Your task to perform on an android device: search for starred emails in the gmail app Image 0: 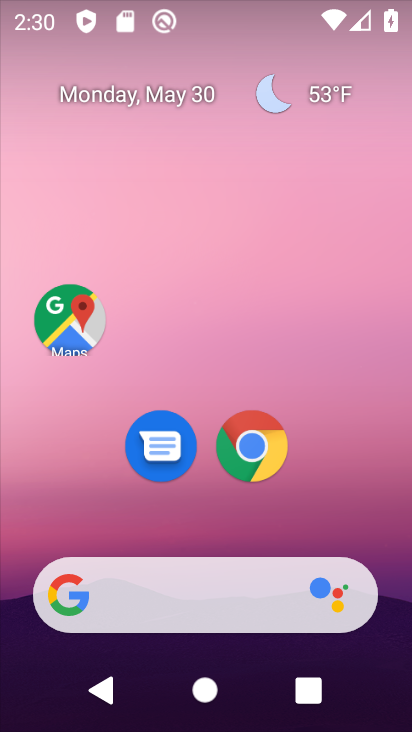
Step 0: drag from (331, 526) to (290, 141)
Your task to perform on an android device: search for starred emails in the gmail app Image 1: 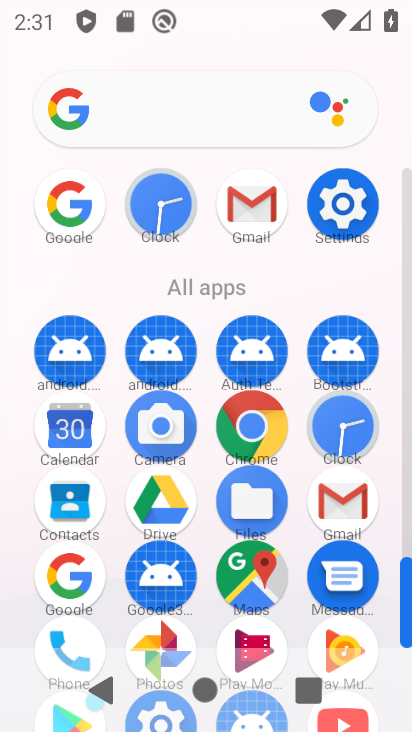
Step 1: click (248, 201)
Your task to perform on an android device: search for starred emails in the gmail app Image 2: 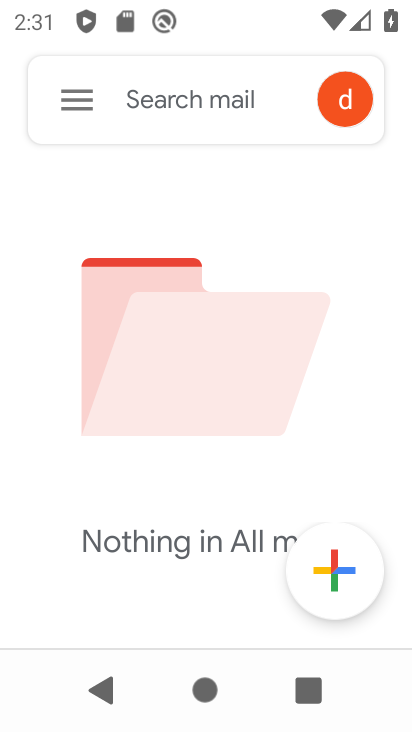
Step 2: click (80, 101)
Your task to perform on an android device: search for starred emails in the gmail app Image 3: 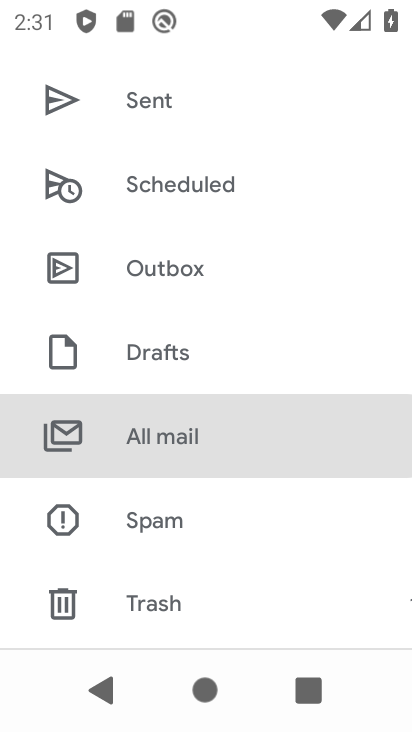
Step 3: drag from (200, 125) to (220, 180)
Your task to perform on an android device: search for starred emails in the gmail app Image 4: 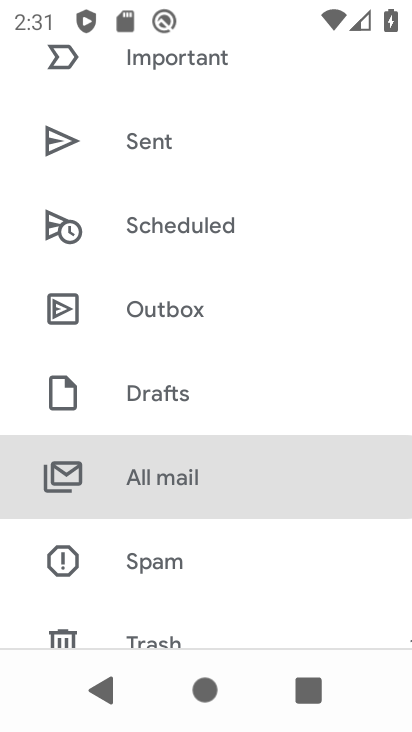
Step 4: drag from (215, 120) to (229, 221)
Your task to perform on an android device: search for starred emails in the gmail app Image 5: 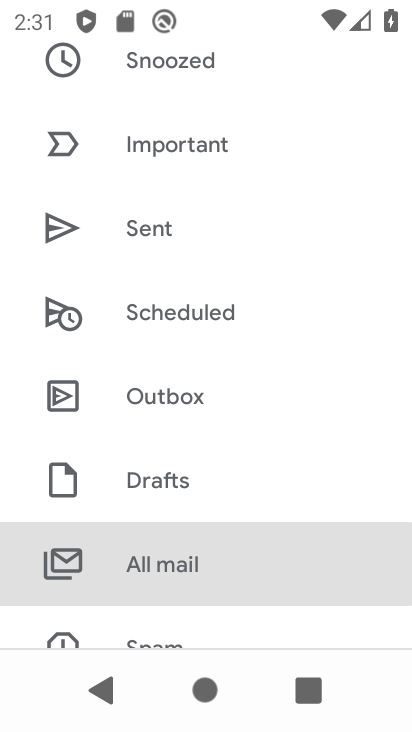
Step 5: drag from (215, 119) to (210, 248)
Your task to perform on an android device: search for starred emails in the gmail app Image 6: 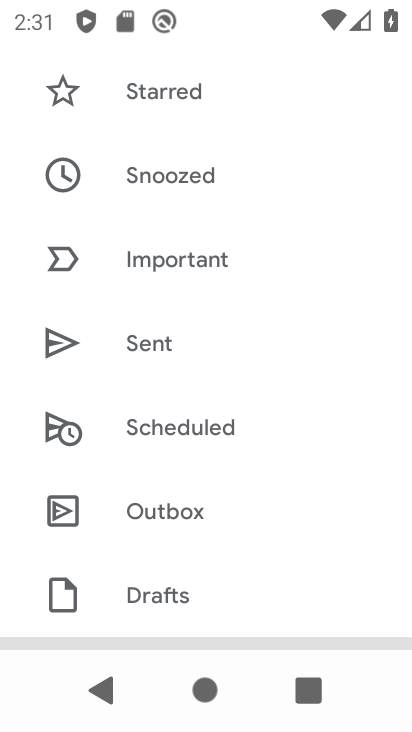
Step 6: drag from (192, 136) to (223, 323)
Your task to perform on an android device: search for starred emails in the gmail app Image 7: 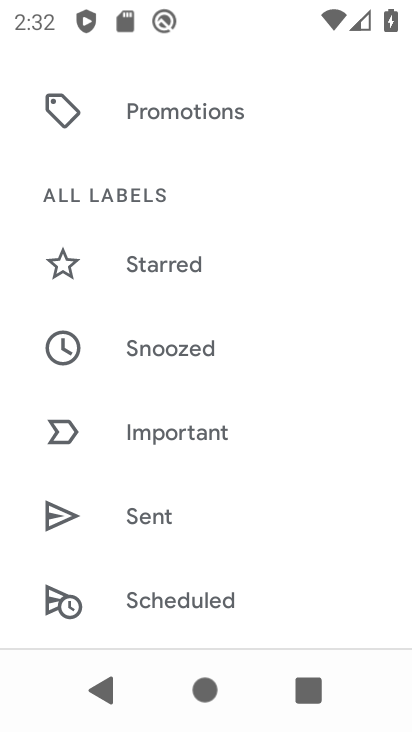
Step 7: drag from (198, 290) to (222, 377)
Your task to perform on an android device: search for starred emails in the gmail app Image 8: 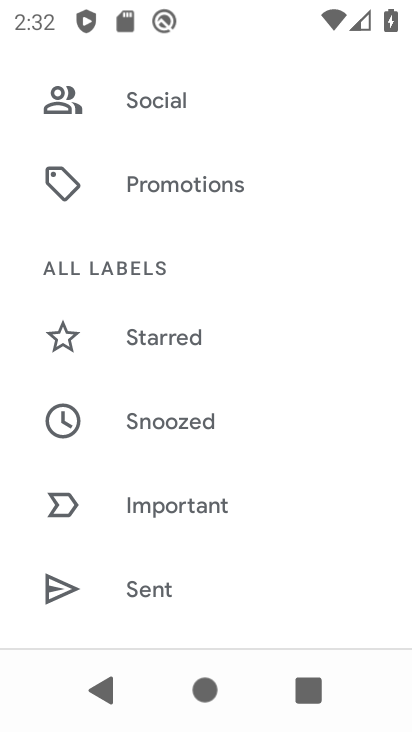
Step 8: drag from (223, 245) to (251, 388)
Your task to perform on an android device: search for starred emails in the gmail app Image 9: 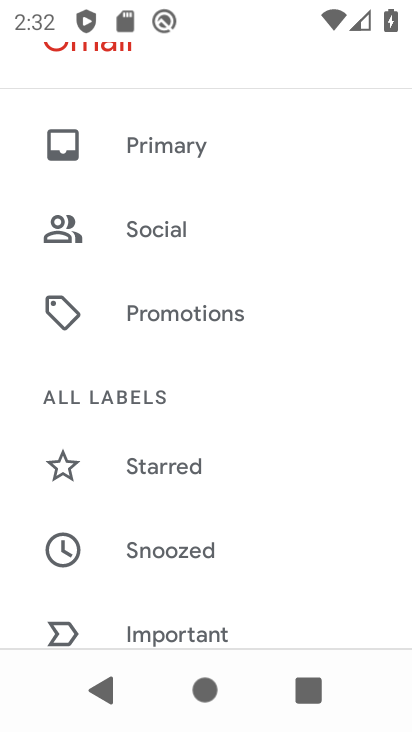
Step 9: click (188, 464)
Your task to perform on an android device: search for starred emails in the gmail app Image 10: 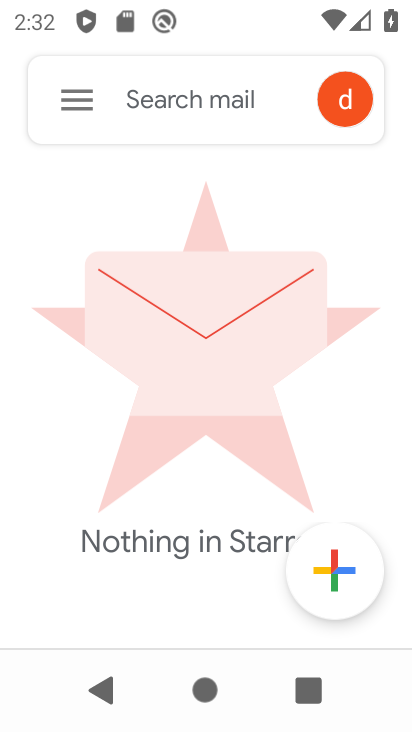
Step 10: task complete